Your task to perform on an android device: Go to Google Image 0: 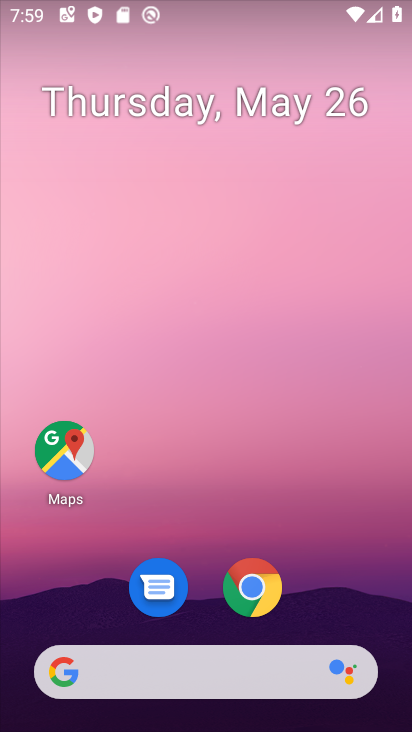
Step 0: drag from (208, 628) to (206, 195)
Your task to perform on an android device: Go to Google Image 1: 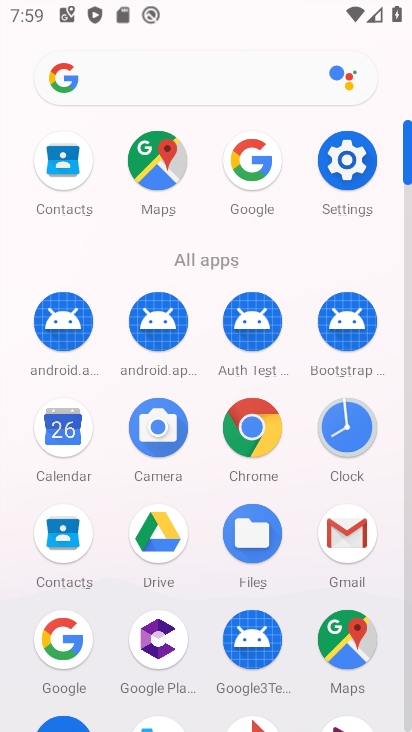
Step 1: click (232, 201)
Your task to perform on an android device: Go to Google Image 2: 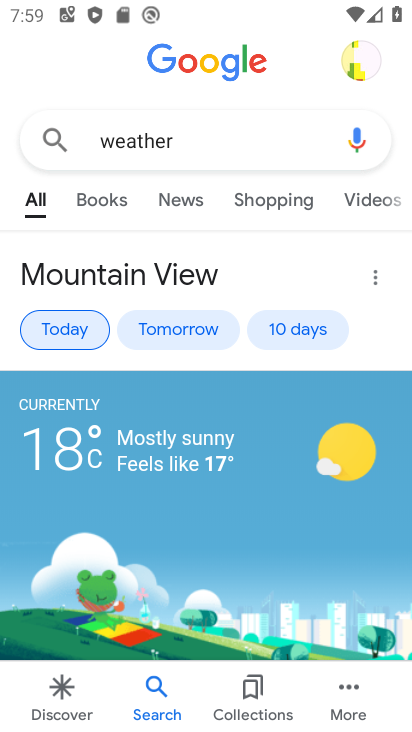
Step 2: task complete